Your task to perform on an android device: turn off picture-in-picture Image 0: 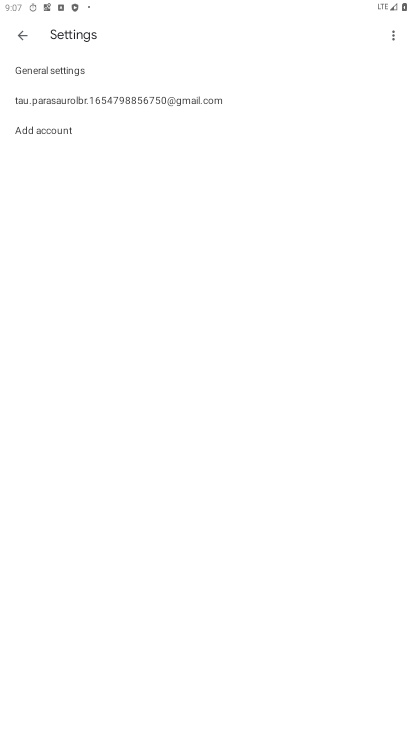
Step 0: press home button
Your task to perform on an android device: turn off picture-in-picture Image 1: 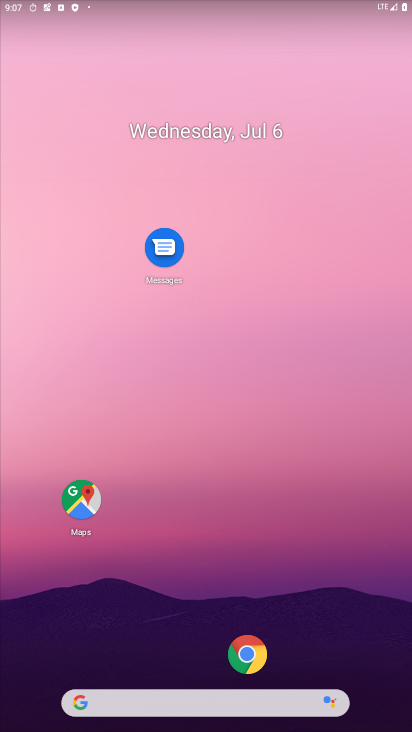
Step 1: click (259, 656)
Your task to perform on an android device: turn off picture-in-picture Image 2: 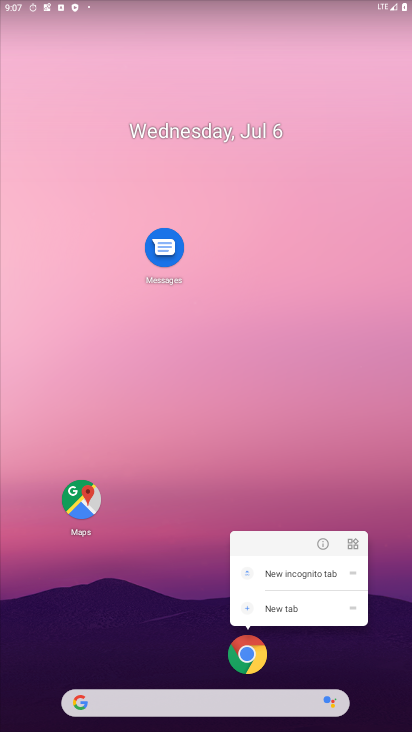
Step 2: click (320, 548)
Your task to perform on an android device: turn off picture-in-picture Image 3: 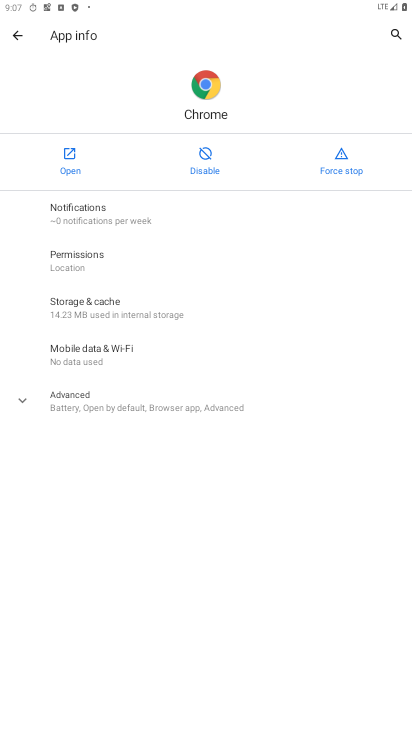
Step 3: click (128, 417)
Your task to perform on an android device: turn off picture-in-picture Image 4: 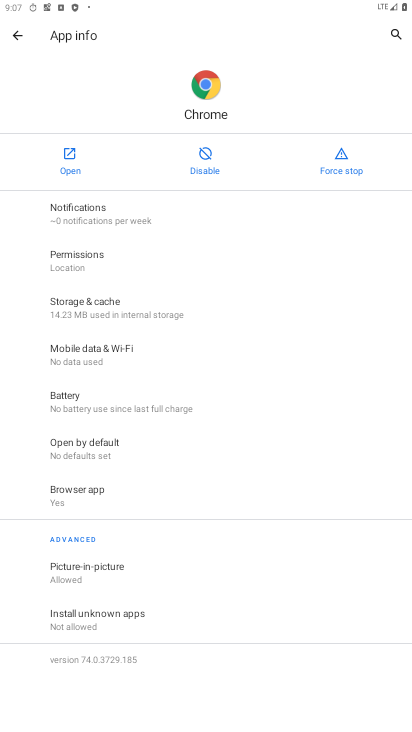
Step 4: click (135, 575)
Your task to perform on an android device: turn off picture-in-picture Image 5: 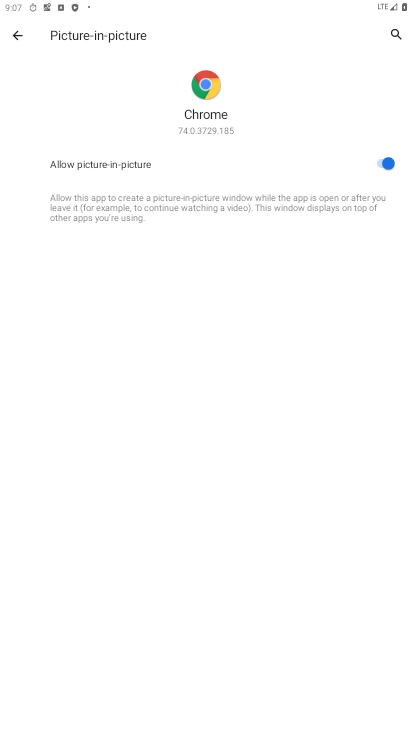
Step 5: click (379, 166)
Your task to perform on an android device: turn off picture-in-picture Image 6: 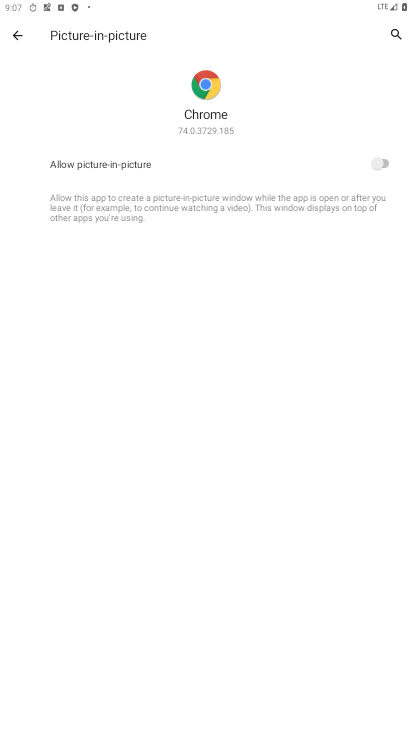
Step 6: task complete